Your task to perform on an android device: turn vacation reply on in the gmail app Image 0: 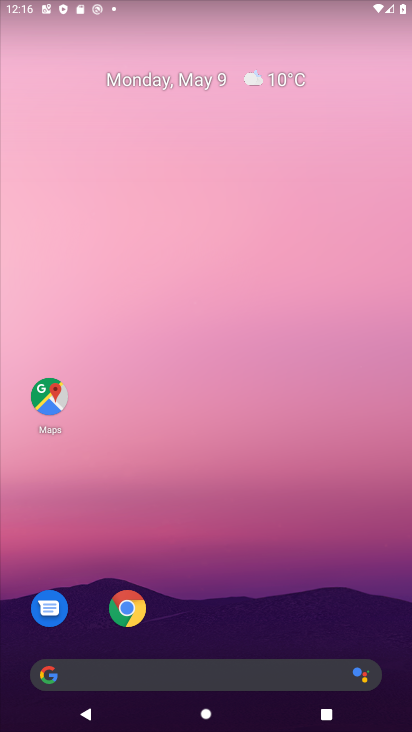
Step 0: drag from (210, 597) to (252, 135)
Your task to perform on an android device: turn vacation reply on in the gmail app Image 1: 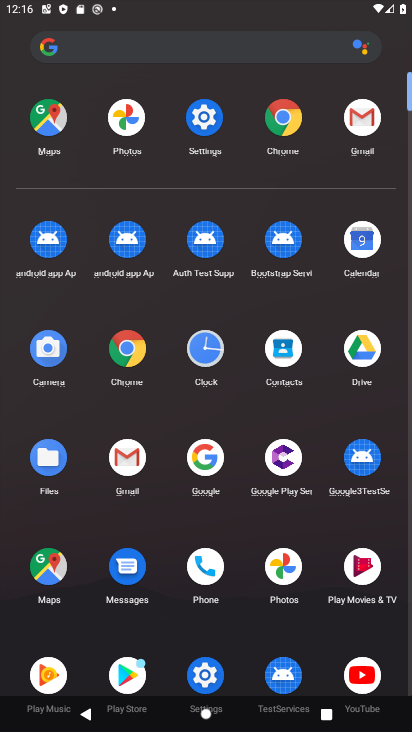
Step 1: click (211, 145)
Your task to perform on an android device: turn vacation reply on in the gmail app Image 2: 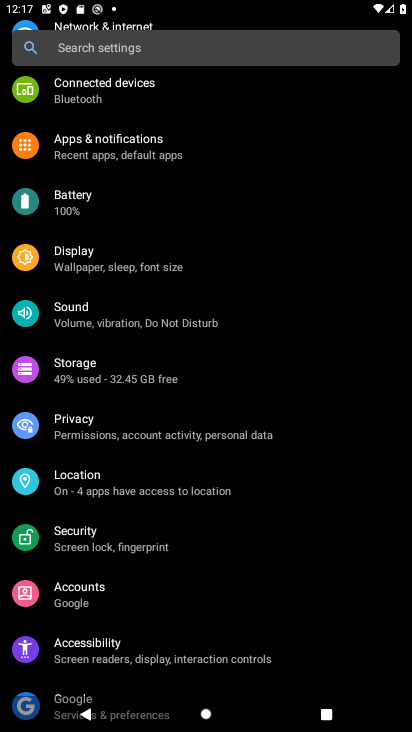
Step 2: press home button
Your task to perform on an android device: turn vacation reply on in the gmail app Image 3: 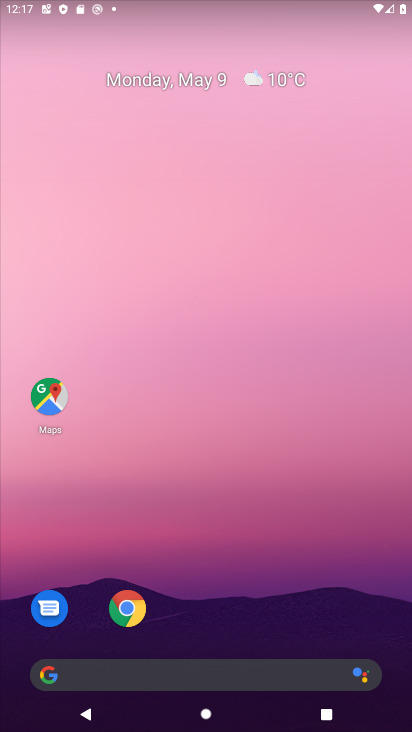
Step 3: drag from (253, 604) to (250, 119)
Your task to perform on an android device: turn vacation reply on in the gmail app Image 4: 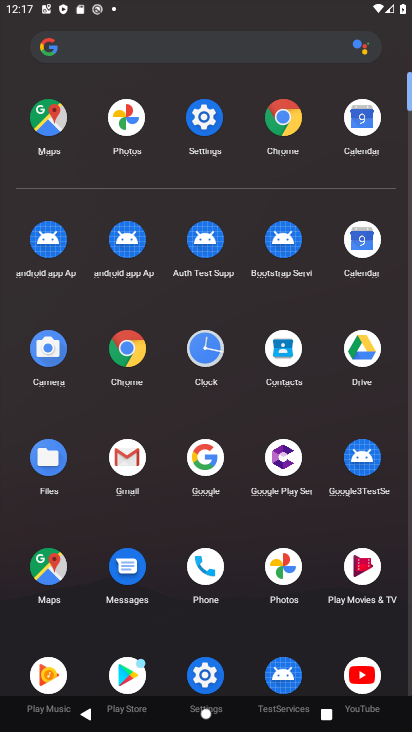
Step 4: click (129, 467)
Your task to perform on an android device: turn vacation reply on in the gmail app Image 5: 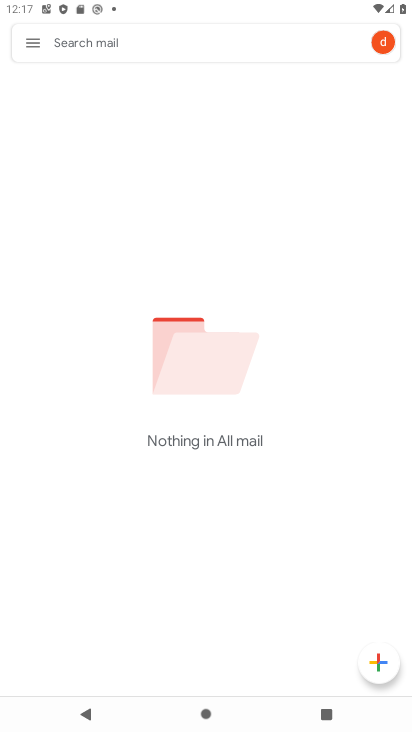
Step 5: click (34, 49)
Your task to perform on an android device: turn vacation reply on in the gmail app Image 6: 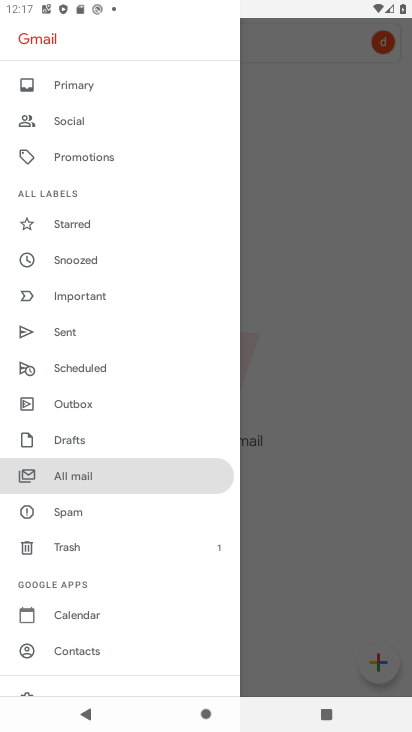
Step 6: drag from (87, 627) to (109, 197)
Your task to perform on an android device: turn vacation reply on in the gmail app Image 7: 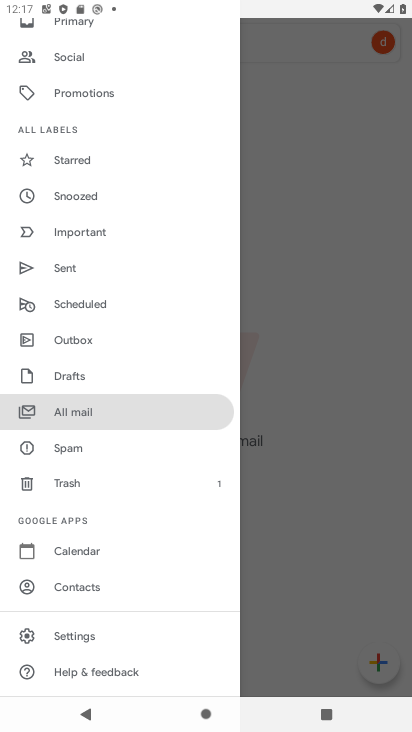
Step 7: click (80, 625)
Your task to perform on an android device: turn vacation reply on in the gmail app Image 8: 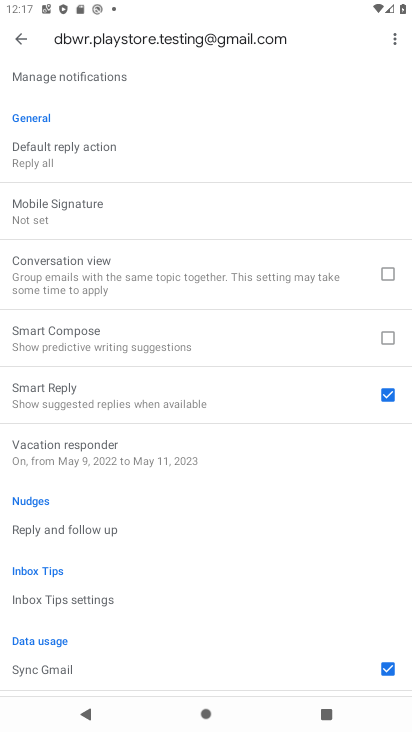
Step 8: drag from (98, 513) to (151, 209)
Your task to perform on an android device: turn vacation reply on in the gmail app Image 9: 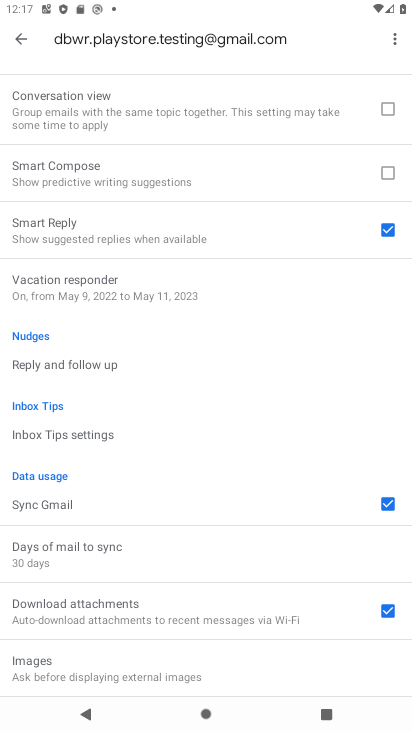
Step 9: drag from (113, 552) to (123, 436)
Your task to perform on an android device: turn vacation reply on in the gmail app Image 10: 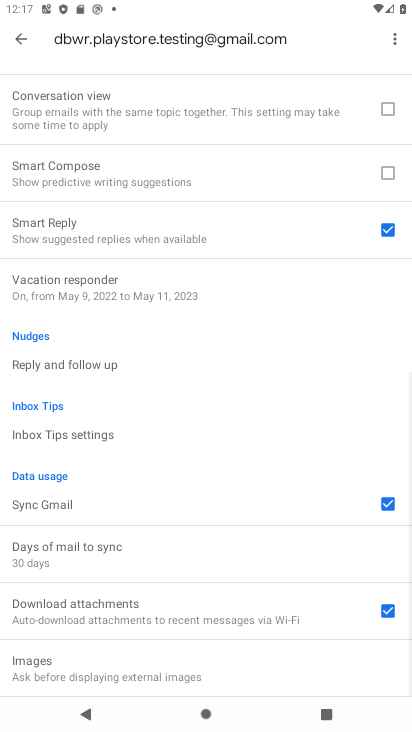
Step 10: click (138, 294)
Your task to perform on an android device: turn vacation reply on in the gmail app Image 11: 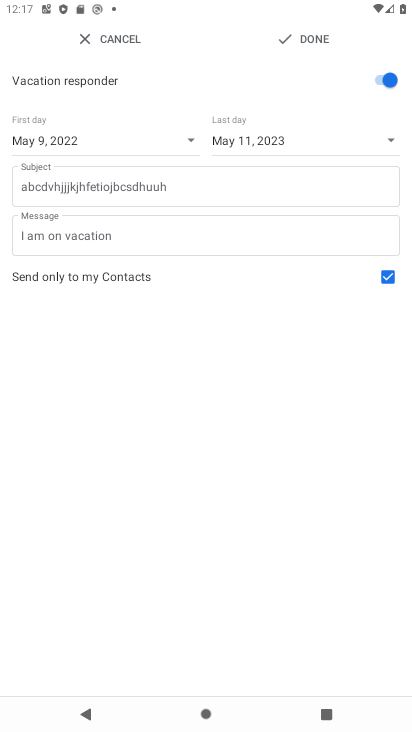
Step 11: click (309, 36)
Your task to perform on an android device: turn vacation reply on in the gmail app Image 12: 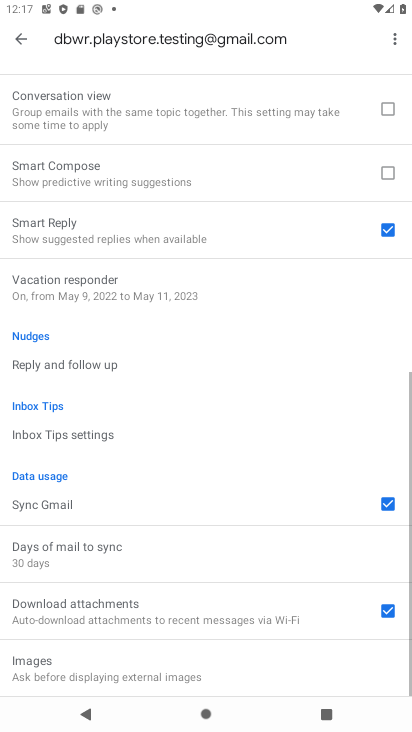
Step 12: task complete